Your task to perform on an android device: Open calendar and show me the fourth week of next month Image 0: 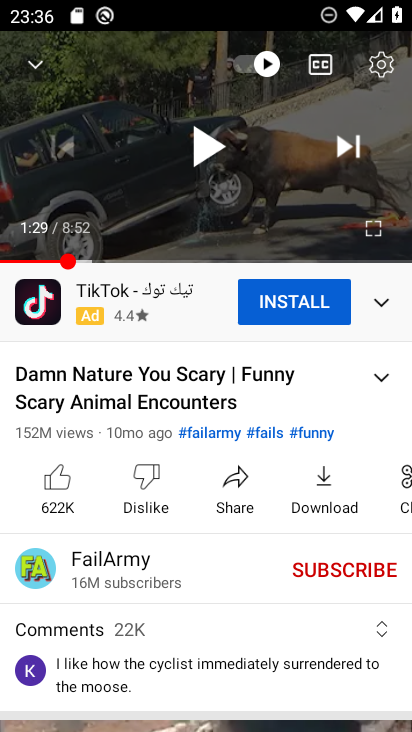
Step 0: press home button
Your task to perform on an android device: Open calendar and show me the fourth week of next month Image 1: 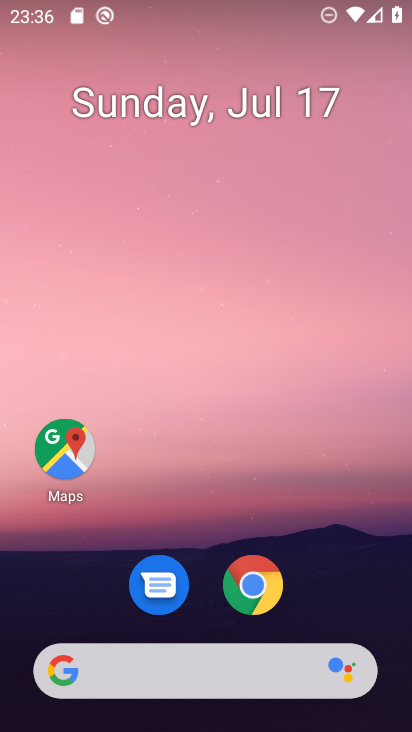
Step 1: drag from (193, 620) to (255, 182)
Your task to perform on an android device: Open calendar and show me the fourth week of next month Image 2: 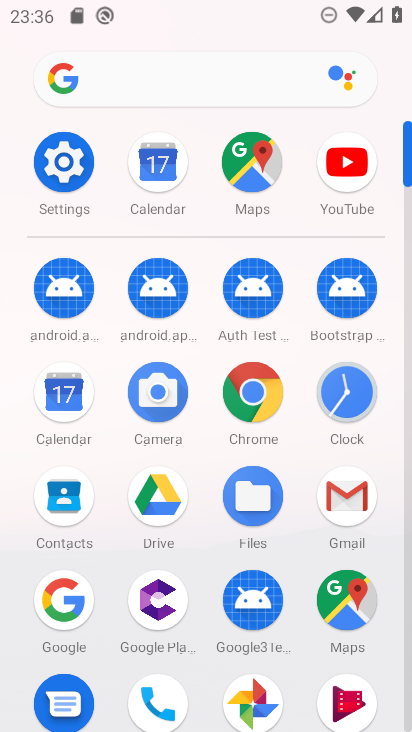
Step 2: click (151, 172)
Your task to perform on an android device: Open calendar and show me the fourth week of next month Image 3: 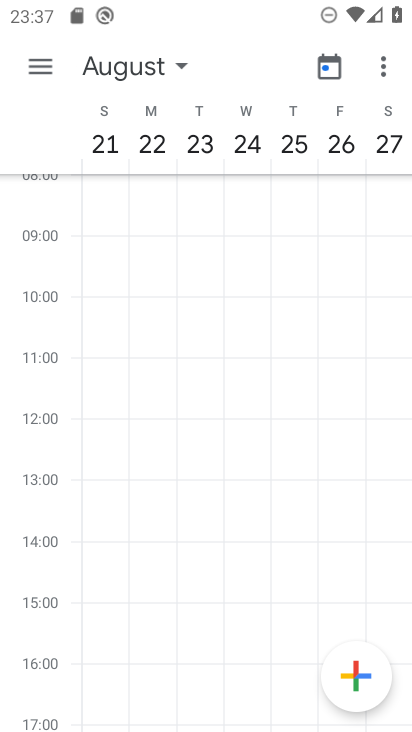
Step 3: task complete